Your task to perform on an android device: open wifi settings Image 0: 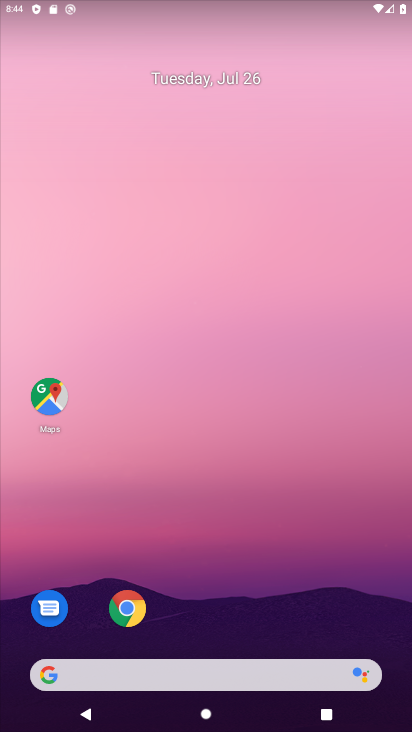
Step 0: drag from (150, 9) to (244, 574)
Your task to perform on an android device: open wifi settings Image 1: 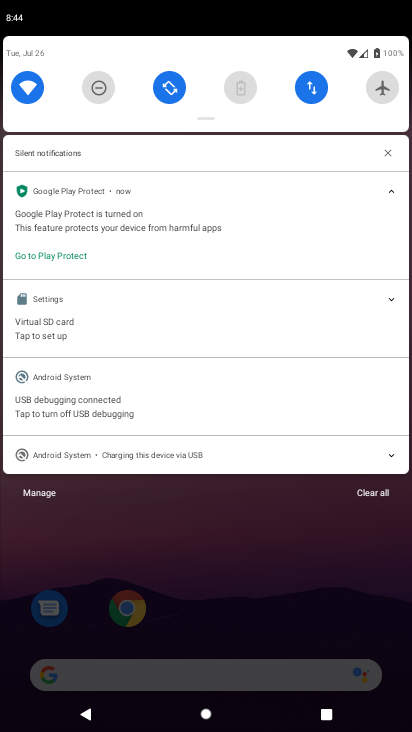
Step 1: click (27, 83)
Your task to perform on an android device: open wifi settings Image 2: 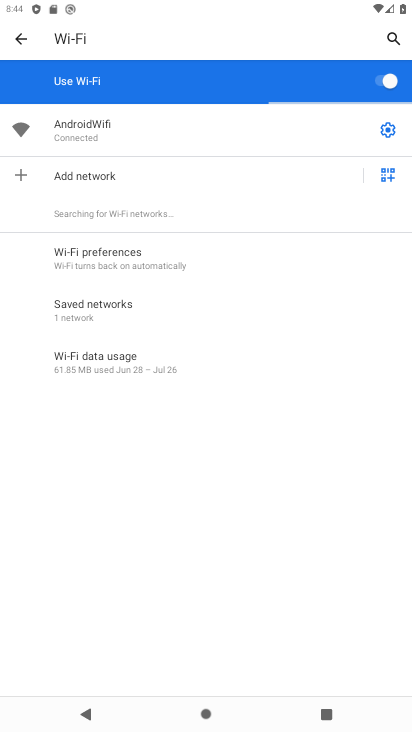
Step 2: task complete